Your task to perform on an android device: What's the weather today? Image 0: 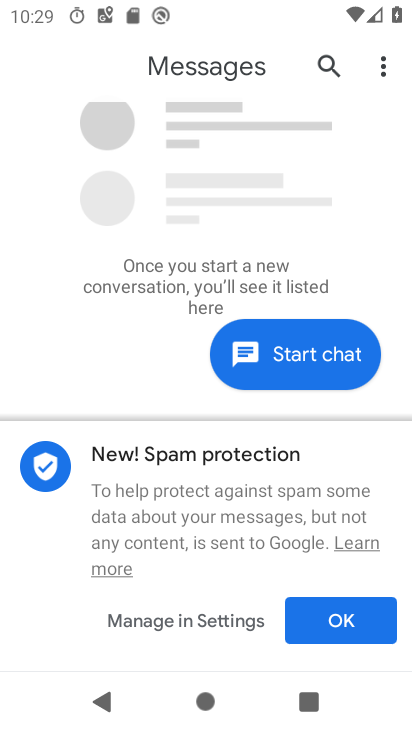
Step 0: press home button
Your task to perform on an android device: What's the weather today? Image 1: 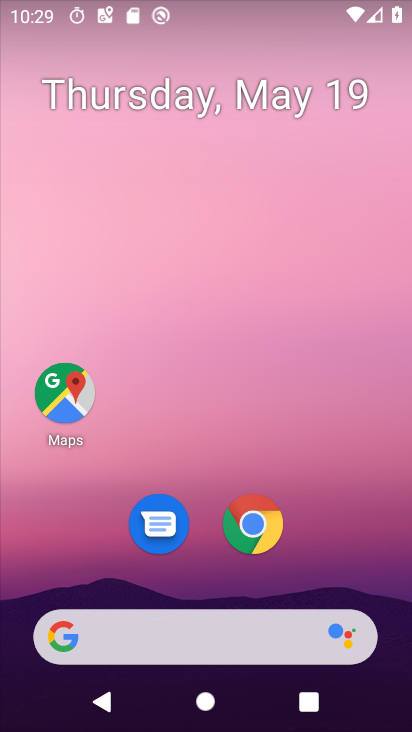
Step 1: click (179, 641)
Your task to perform on an android device: What's the weather today? Image 2: 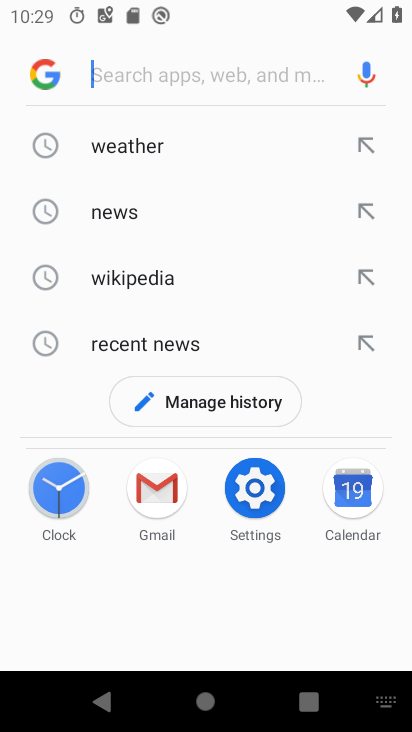
Step 2: click (145, 142)
Your task to perform on an android device: What's the weather today? Image 3: 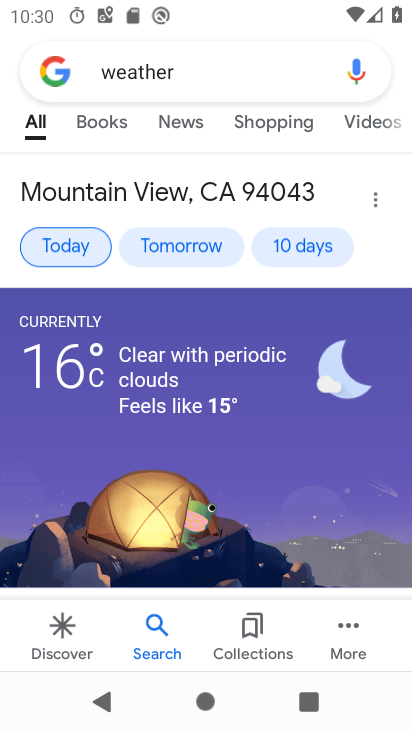
Step 3: click (93, 245)
Your task to perform on an android device: What's the weather today? Image 4: 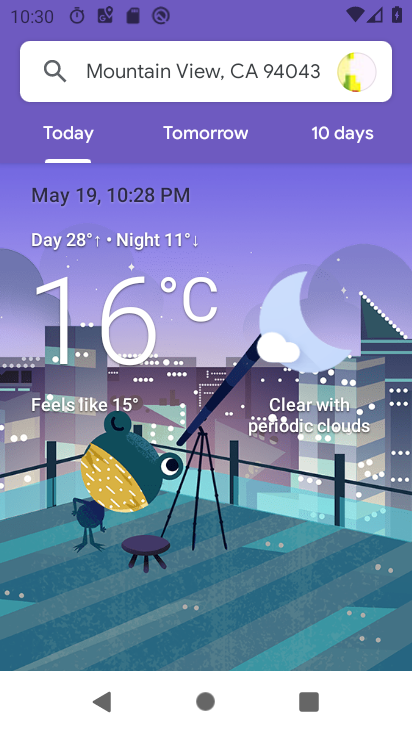
Step 4: task complete